Your task to perform on an android device: clear all cookies in the chrome app Image 0: 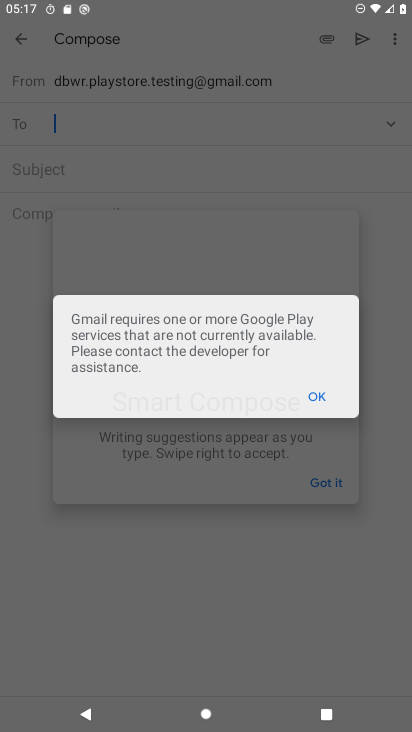
Step 0: drag from (296, 561) to (221, 118)
Your task to perform on an android device: clear all cookies in the chrome app Image 1: 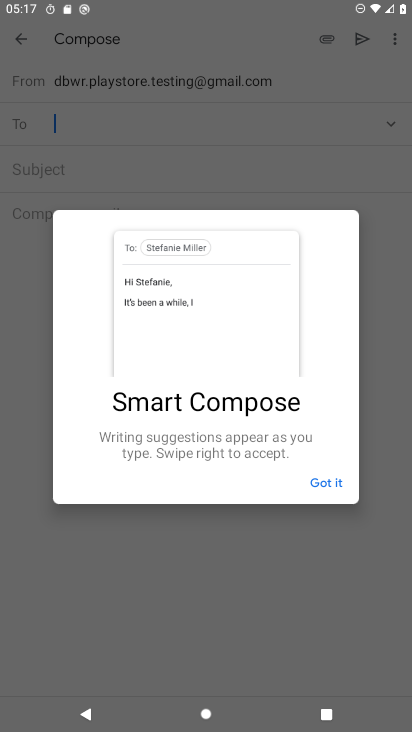
Step 1: press home button
Your task to perform on an android device: clear all cookies in the chrome app Image 2: 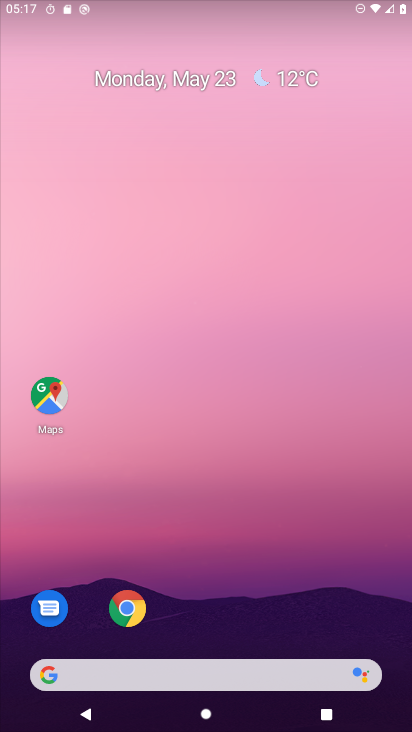
Step 2: click (133, 605)
Your task to perform on an android device: clear all cookies in the chrome app Image 3: 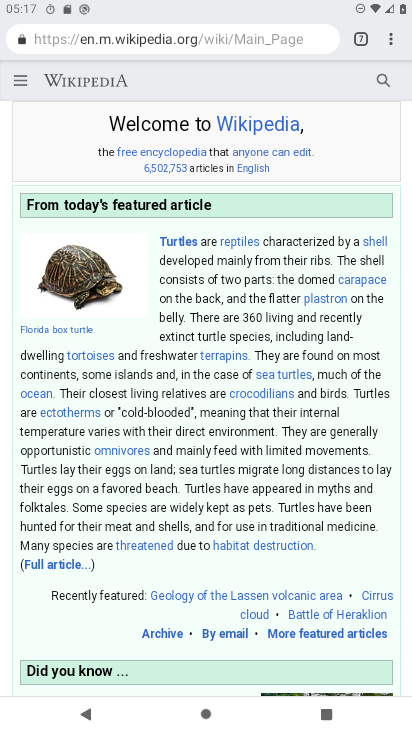
Step 3: click (388, 45)
Your task to perform on an android device: clear all cookies in the chrome app Image 4: 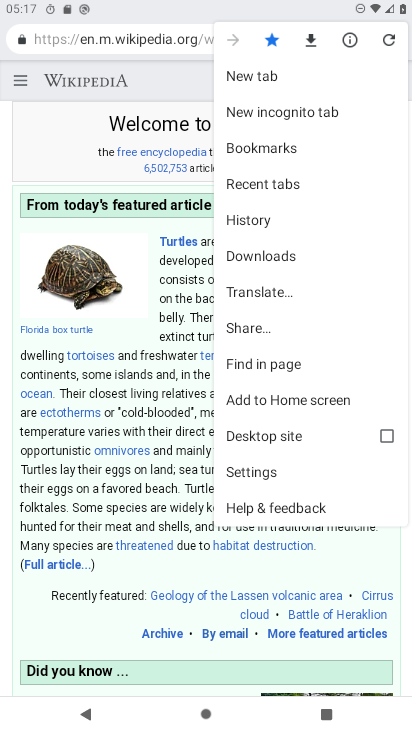
Step 4: click (264, 228)
Your task to perform on an android device: clear all cookies in the chrome app Image 5: 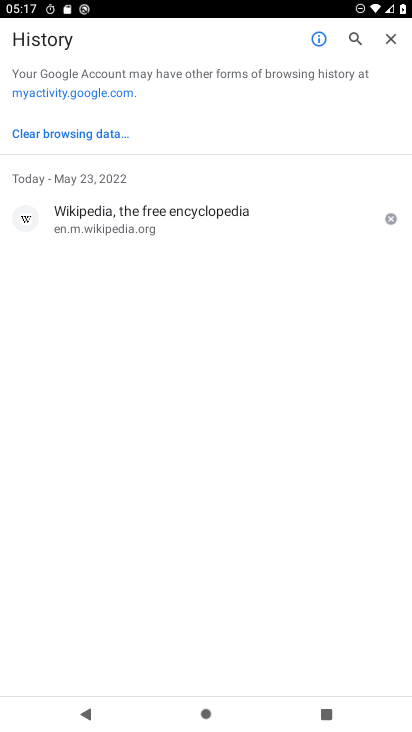
Step 5: click (64, 124)
Your task to perform on an android device: clear all cookies in the chrome app Image 6: 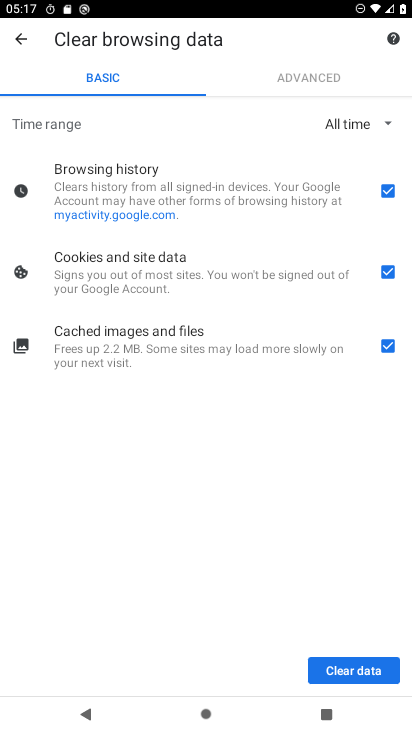
Step 6: click (362, 671)
Your task to perform on an android device: clear all cookies in the chrome app Image 7: 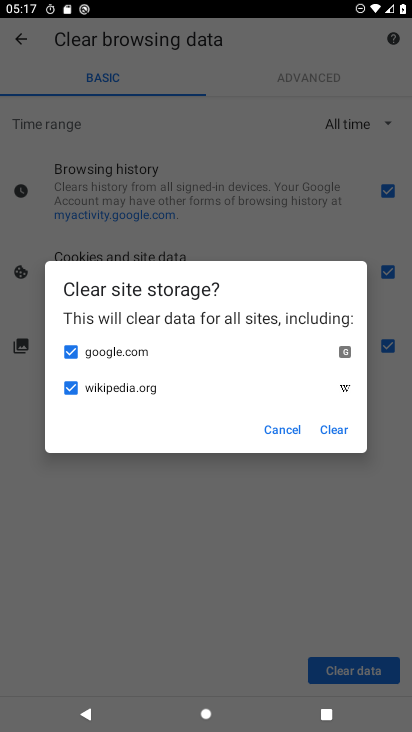
Step 7: click (339, 428)
Your task to perform on an android device: clear all cookies in the chrome app Image 8: 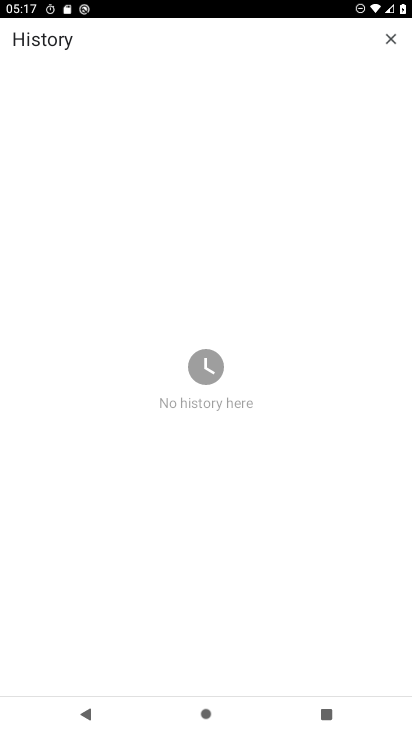
Step 8: task complete